Your task to perform on an android device: open app "Yahoo Mail" (install if not already installed) and enter user name: "lawsuit@inbox.com" and password: "pooch" Image 0: 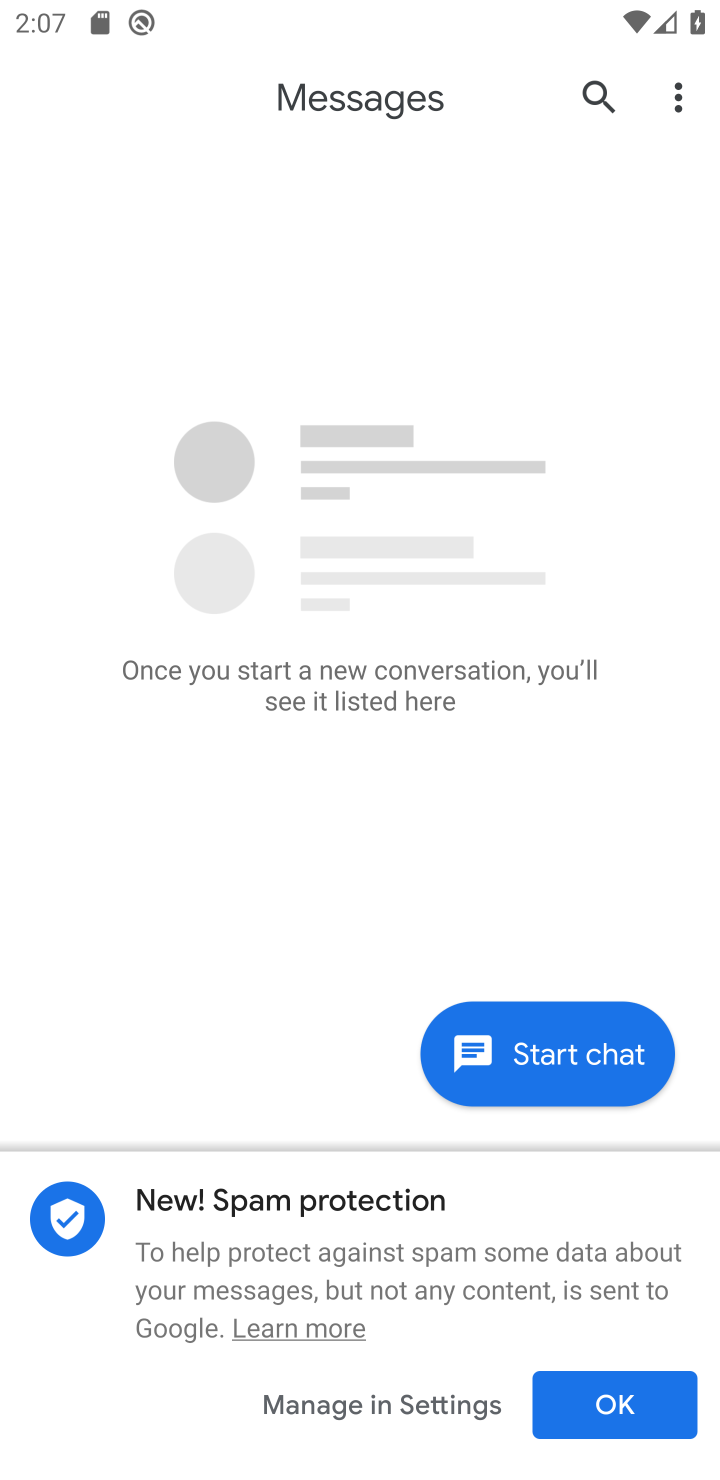
Step 0: press home button
Your task to perform on an android device: open app "Yahoo Mail" (install if not already installed) and enter user name: "lawsuit@inbox.com" and password: "pooch" Image 1: 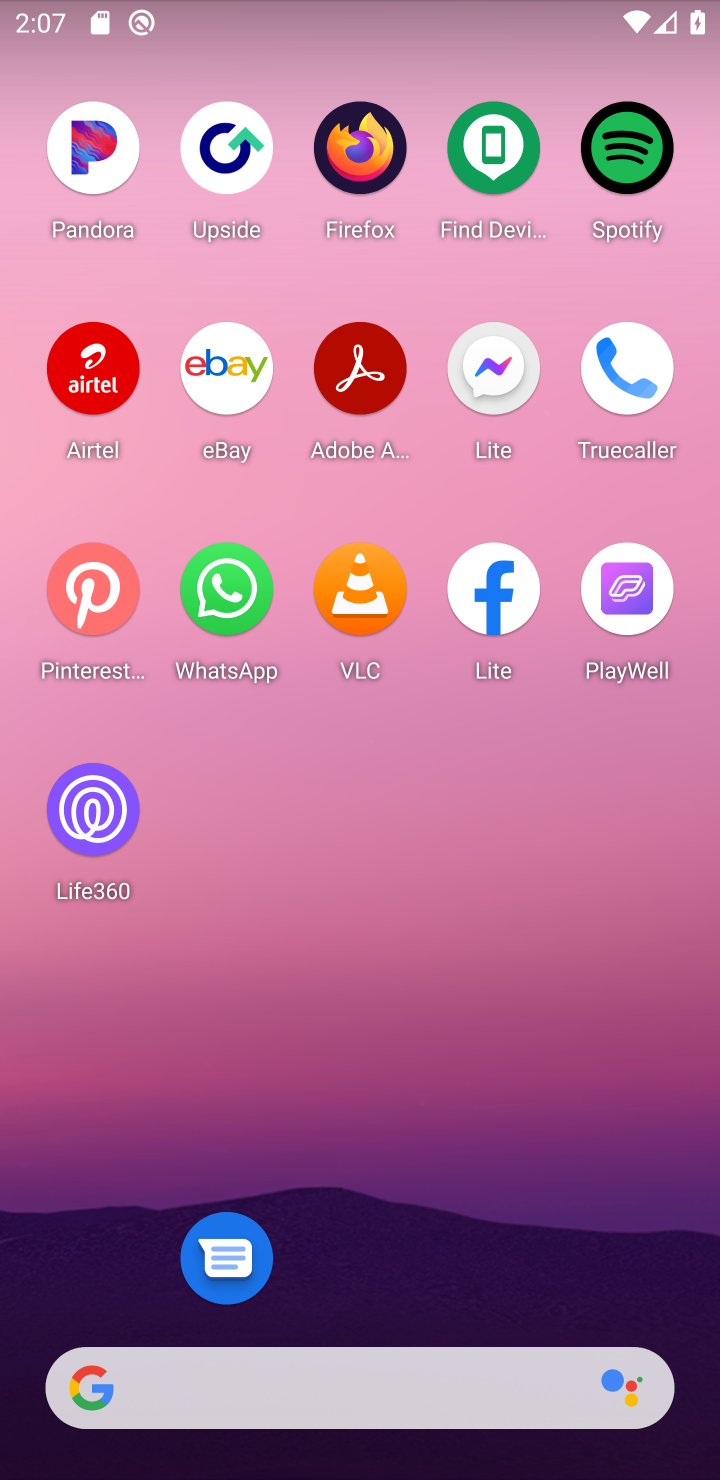
Step 1: drag from (355, 1193) to (465, 26)
Your task to perform on an android device: open app "Yahoo Mail" (install if not already installed) and enter user name: "lawsuit@inbox.com" and password: "pooch" Image 2: 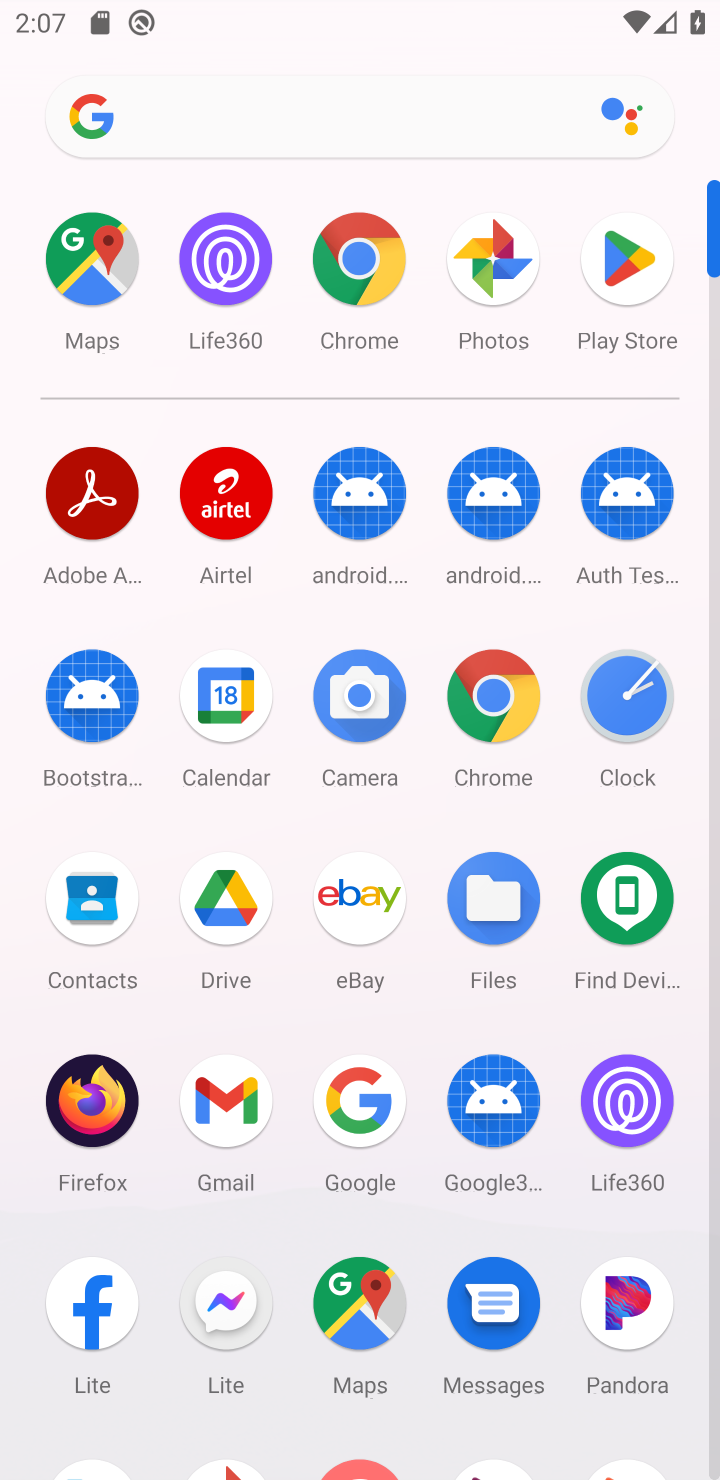
Step 2: click (628, 275)
Your task to perform on an android device: open app "Yahoo Mail" (install if not already installed) and enter user name: "lawsuit@inbox.com" and password: "pooch" Image 3: 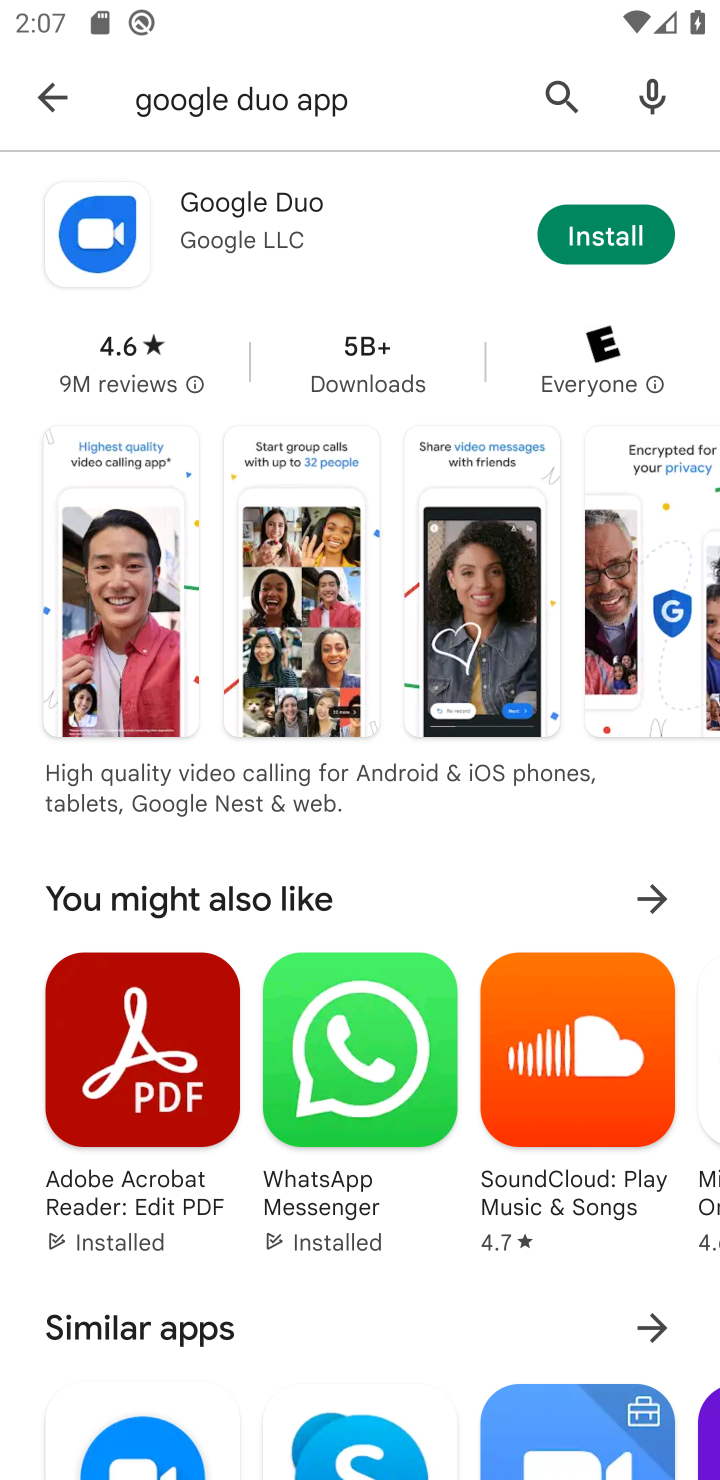
Step 3: click (33, 74)
Your task to perform on an android device: open app "Yahoo Mail" (install if not already installed) and enter user name: "lawsuit@inbox.com" and password: "pooch" Image 4: 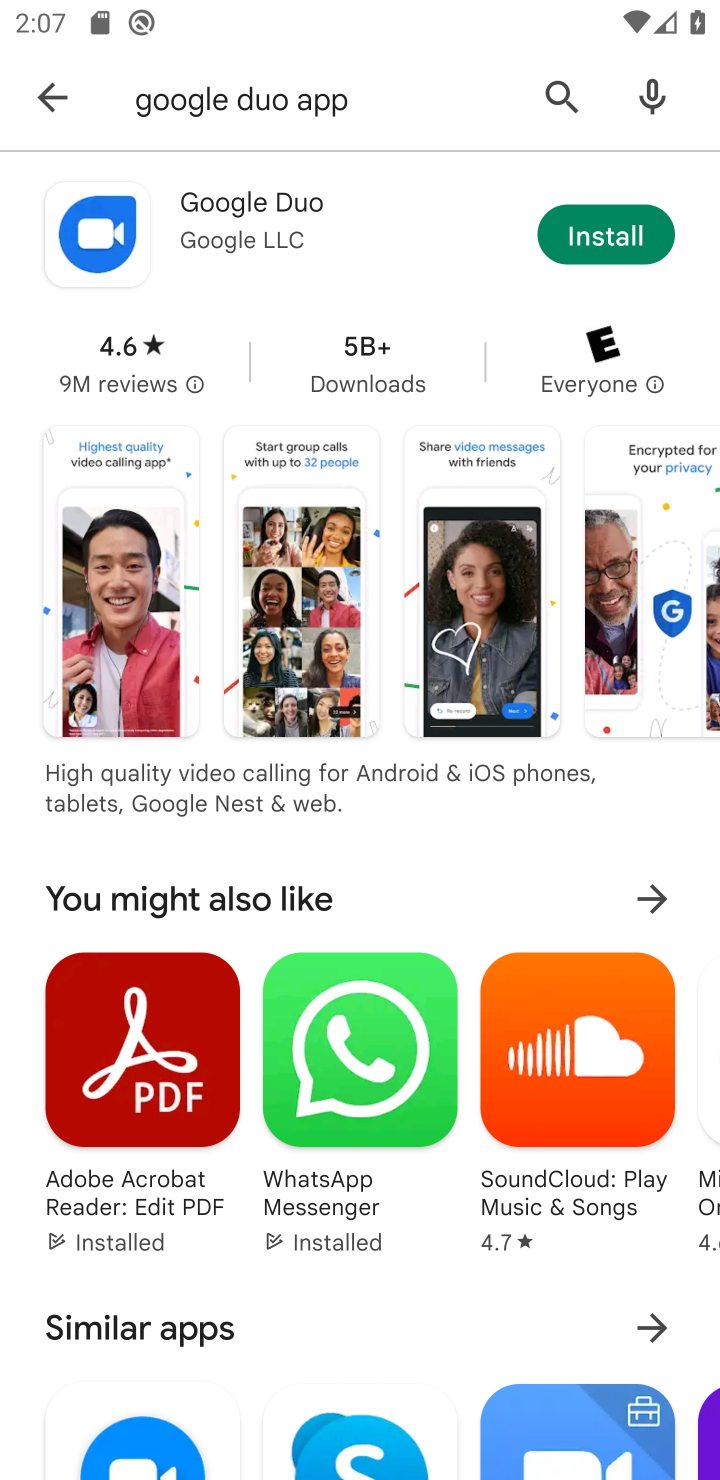
Step 4: click (278, 106)
Your task to perform on an android device: open app "Yahoo Mail" (install if not already installed) and enter user name: "lawsuit@inbox.com" and password: "pooch" Image 5: 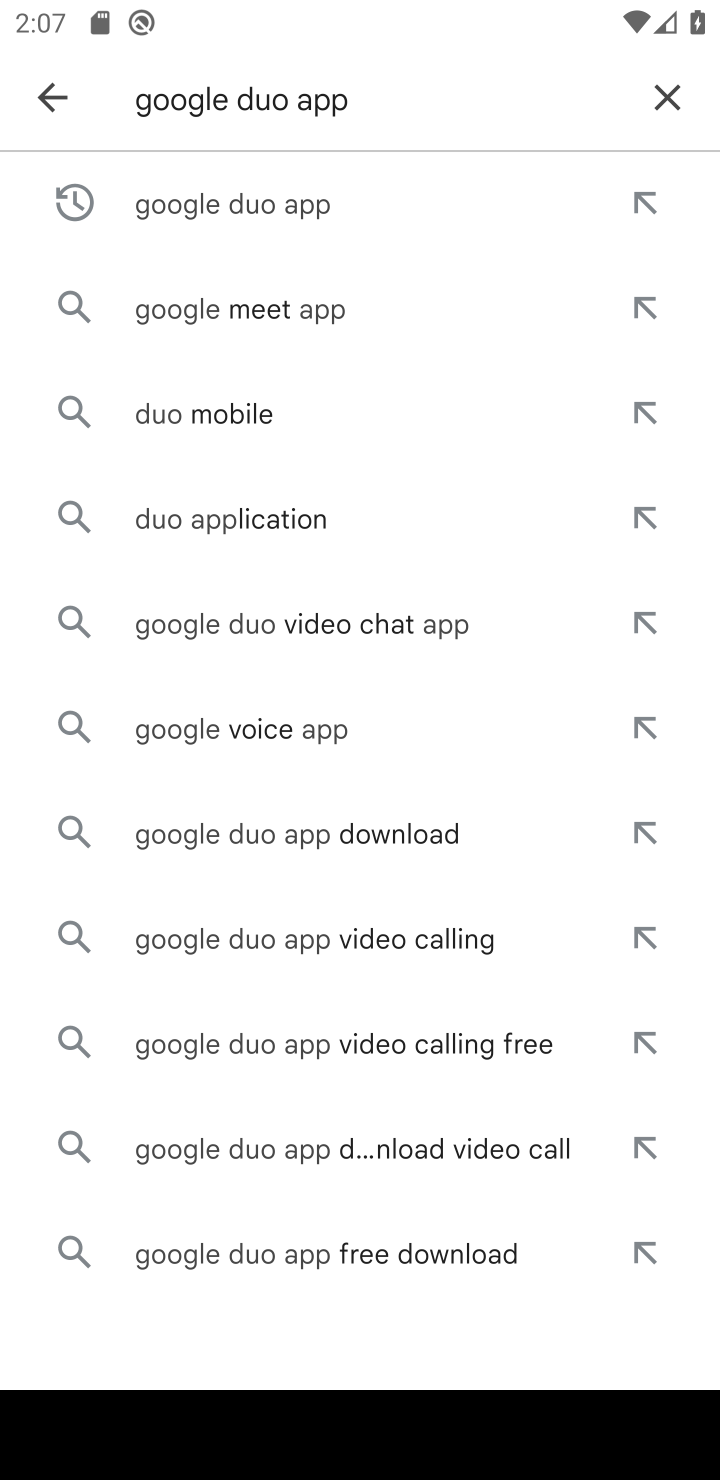
Step 5: type "Yahoo Mail "
Your task to perform on an android device: open app "Yahoo Mail" (install if not already installed) and enter user name: "lawsuit@inbox.com" and password: "pooch" Image 6: 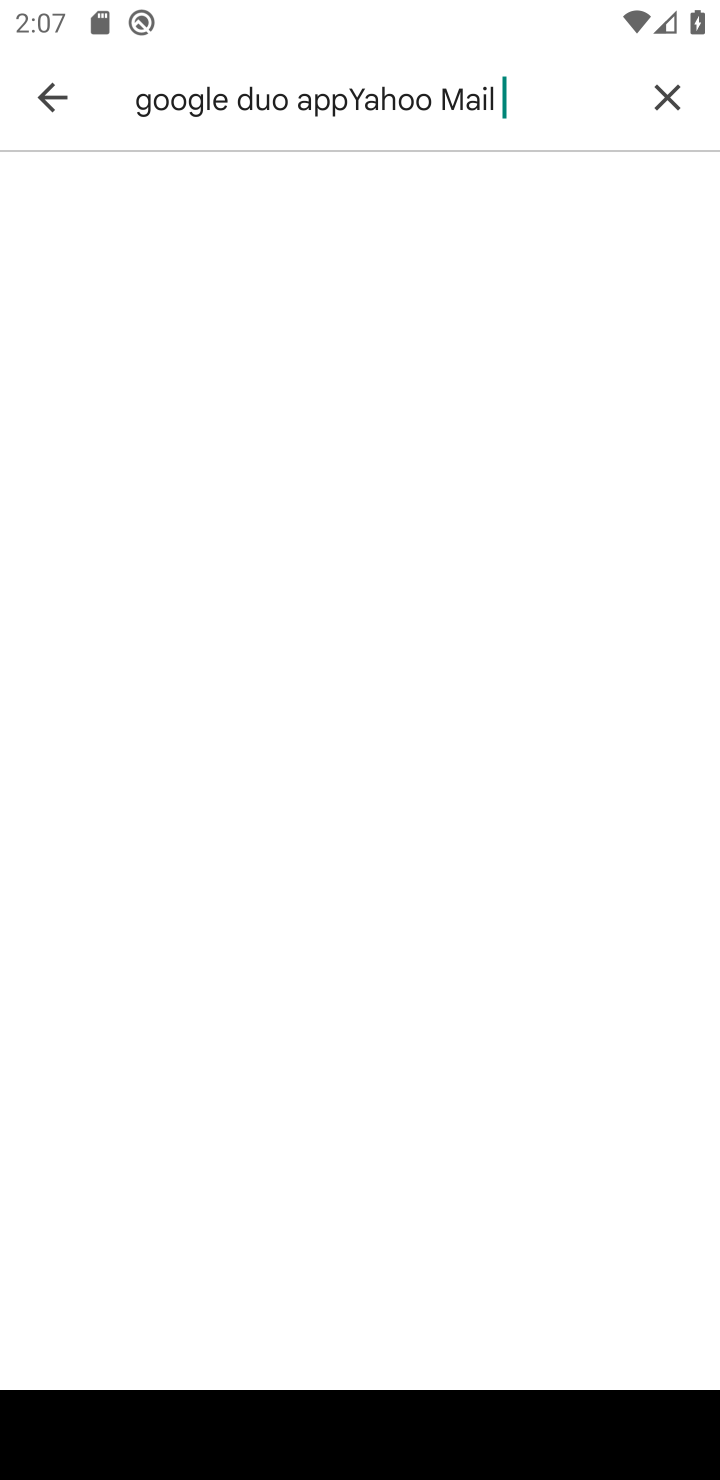
Step 6: click (336, 91)
Your task to perform on an android device: open app "Yahoo Mail" (install if not already installed) and enter user name: "lawsuit@inbox.com" and password: "pooch" Image 7: 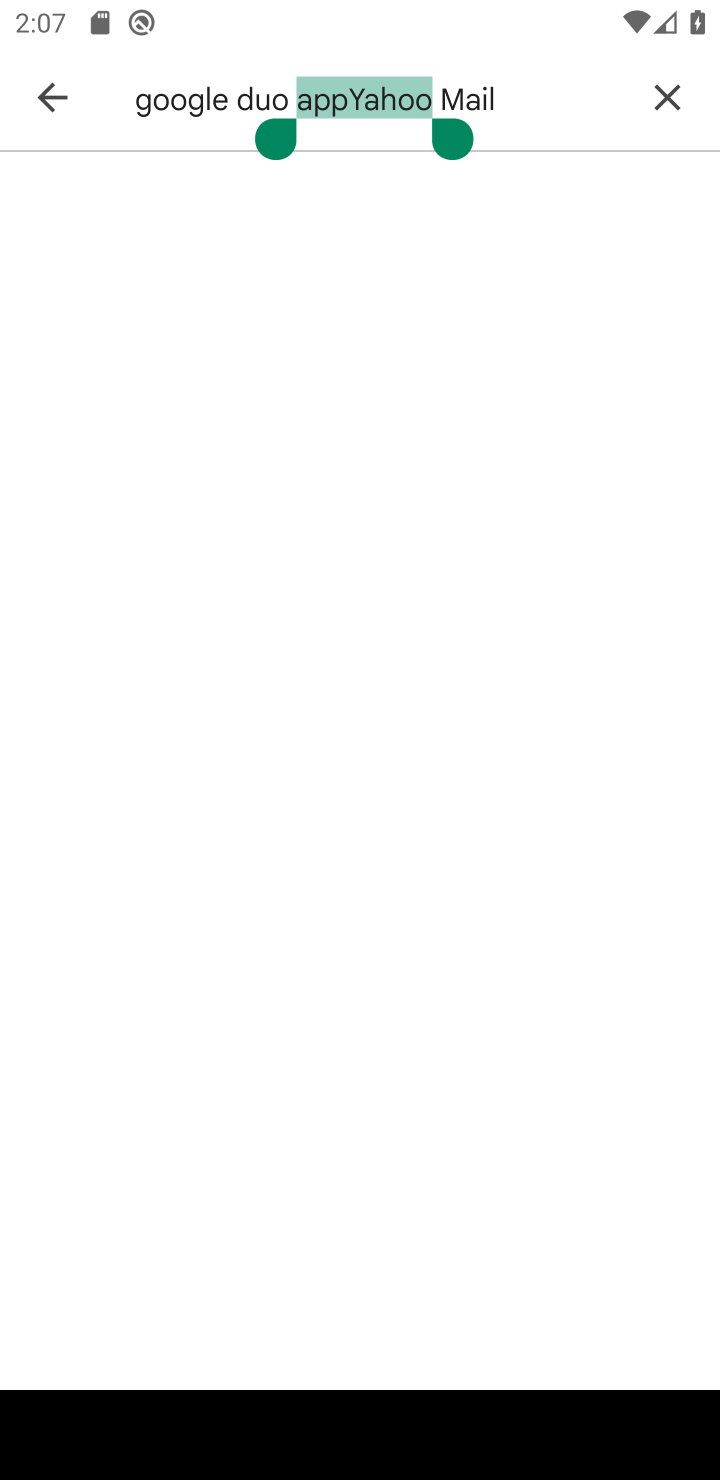
Step 7: click (160, 78)
Your task to perform on an android device: open app "Yahoo Mail" (install if not already installed) and enter user name: "lawsuit@inbox.com" and password: "pooch" Image 8: 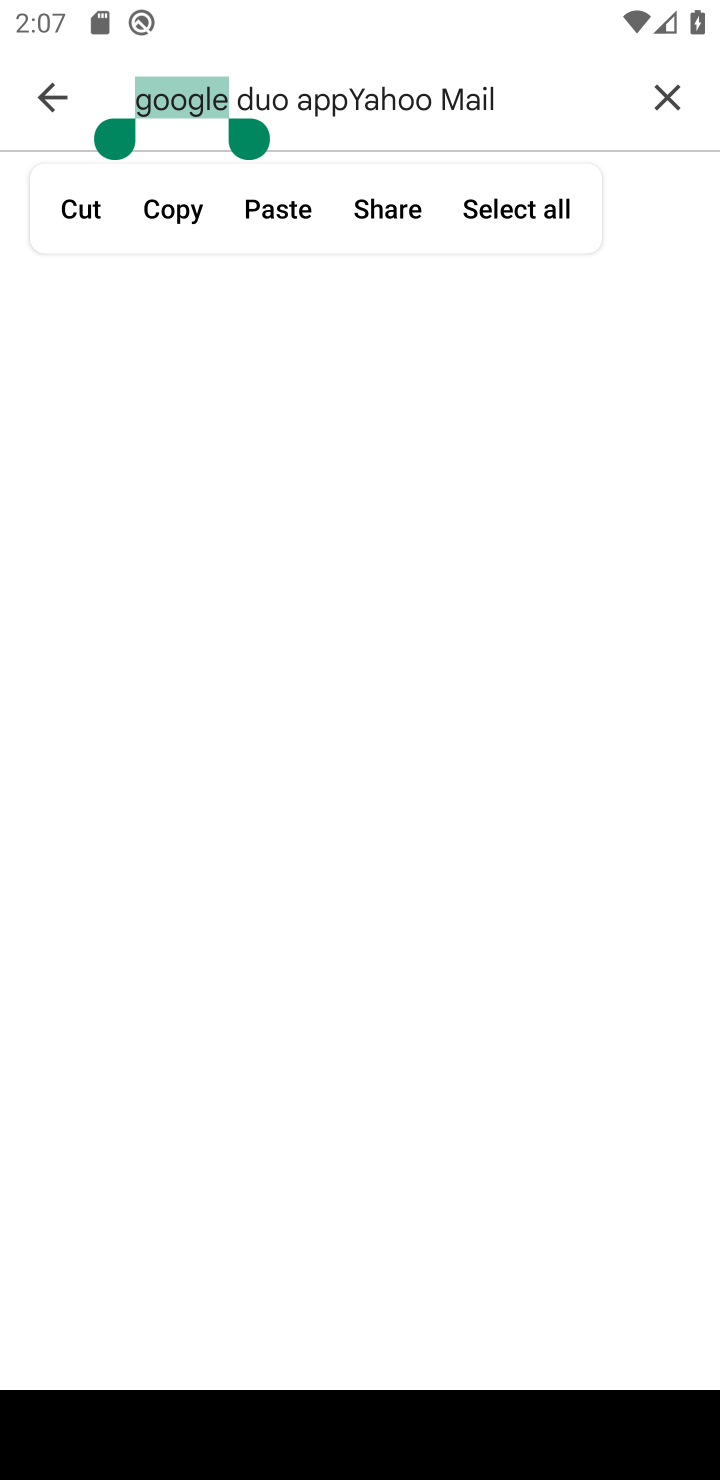
Step 8: drag from (226, 121) to (332, 119)
Your task to perform on an android device: open app "Yahoo Mail" (install if not already installed) and enter user name: "lawsuit@inbox.com" and password: "pooch" Image 9: 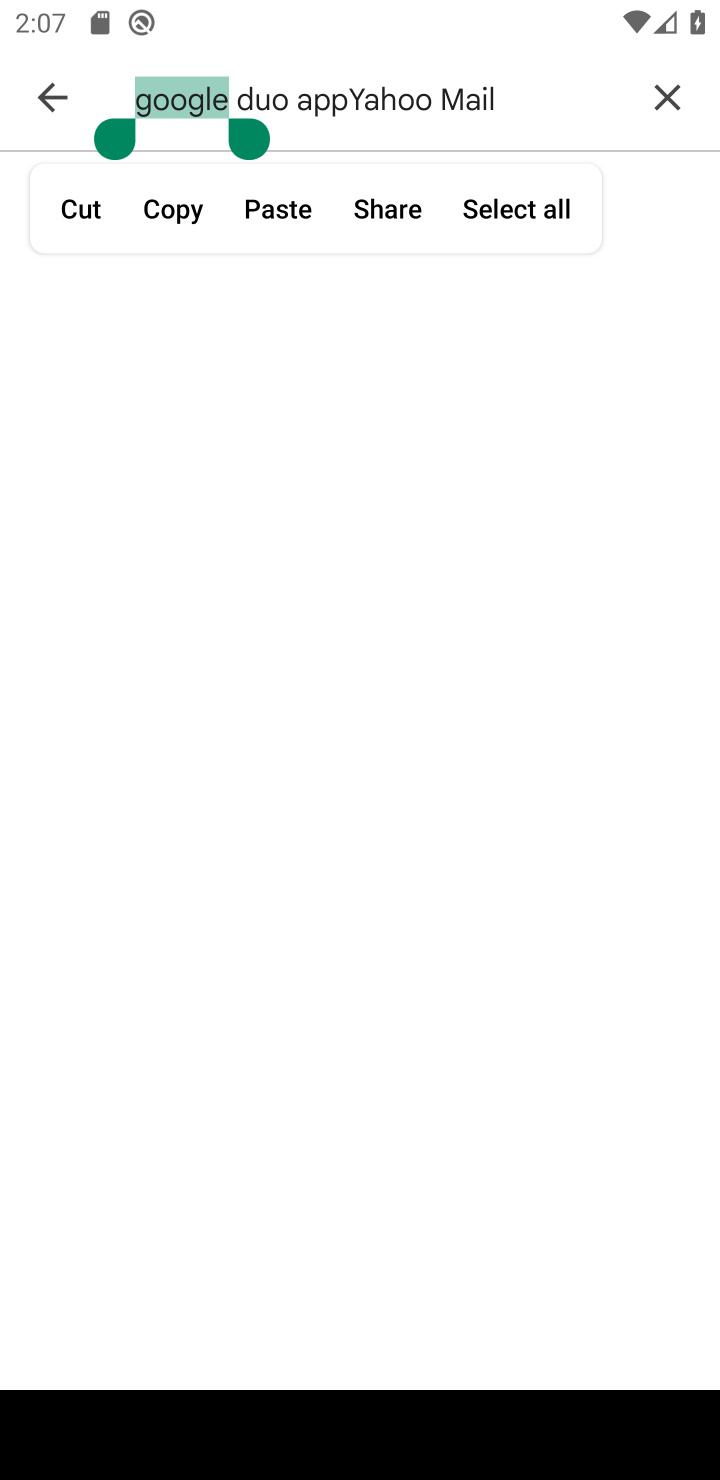
Step 9: drag from (225, 127) to (358, 132)
Your task to perform on an android device: open app "Yahoo Mail" (install if not already installed) and enter user name: "lawsuit@inbox.com" and password: "pooch" Image 10: 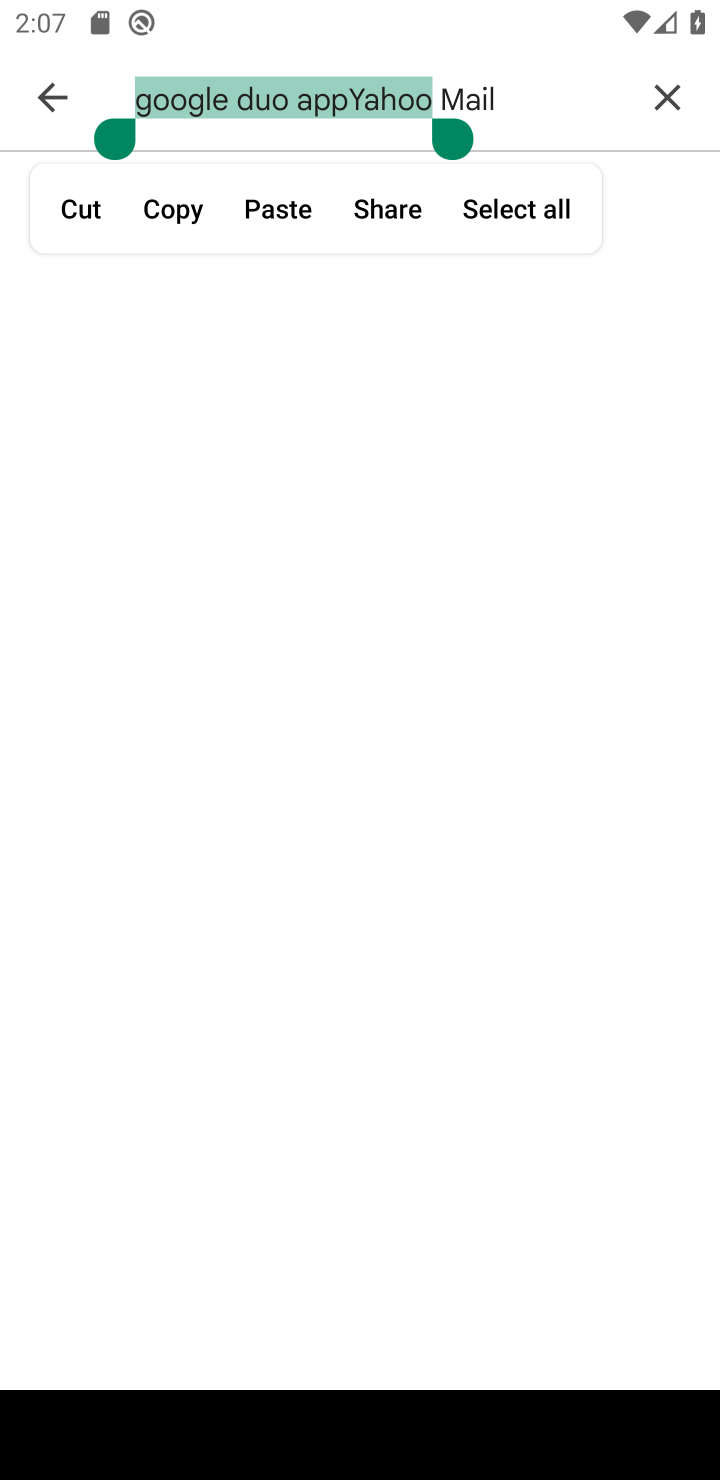
Step 10: drag from (442, 125) to (360, 107)
Your task to perform on an android device: open app "Yahoo Mail" (install if not already installed) and enter user name: "lawsuit@inbox.com" and password: "pooch" Image 11: 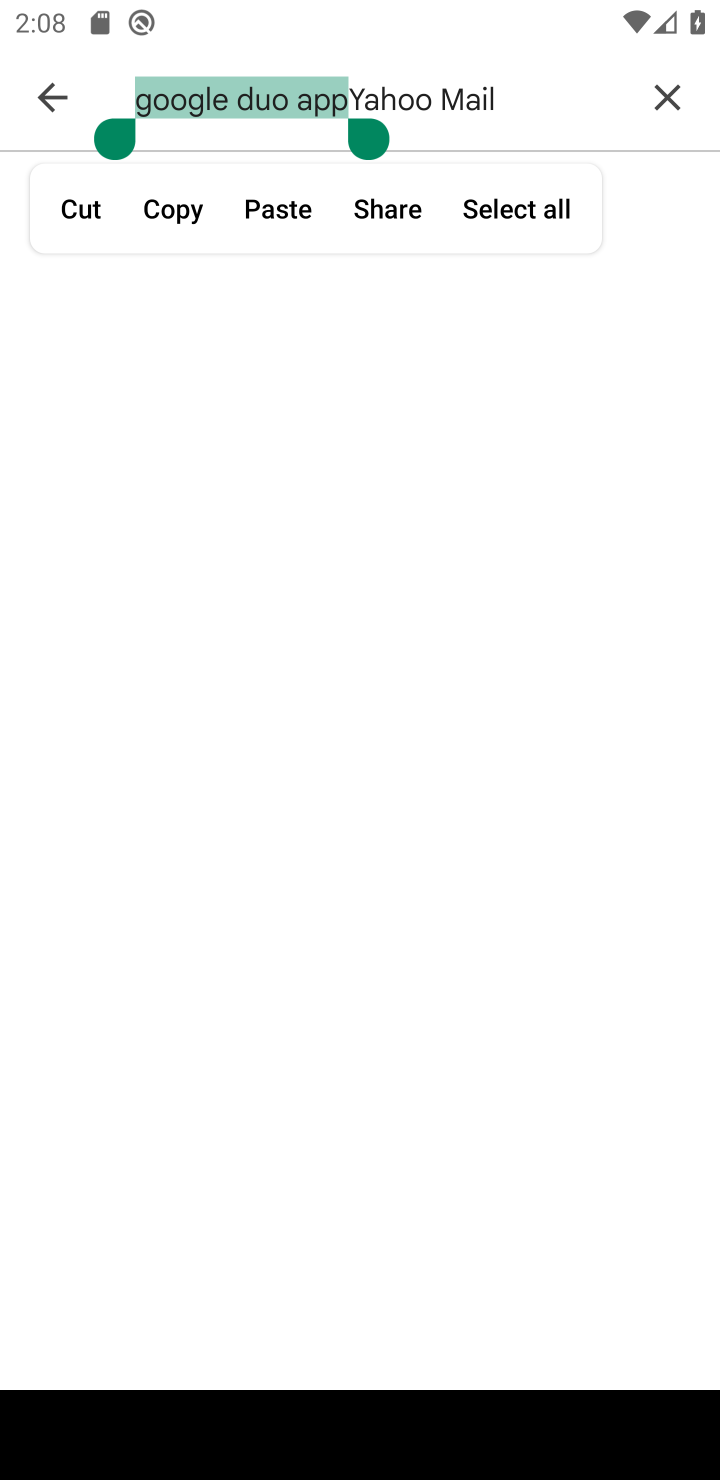
Step 11: click (95, 201)
Your task to perform on an android device: open app "Yahoo Mail" (install if not already installed) and enter user name: "lawsuit@inbox.com" and password: "pooch" Image 12: 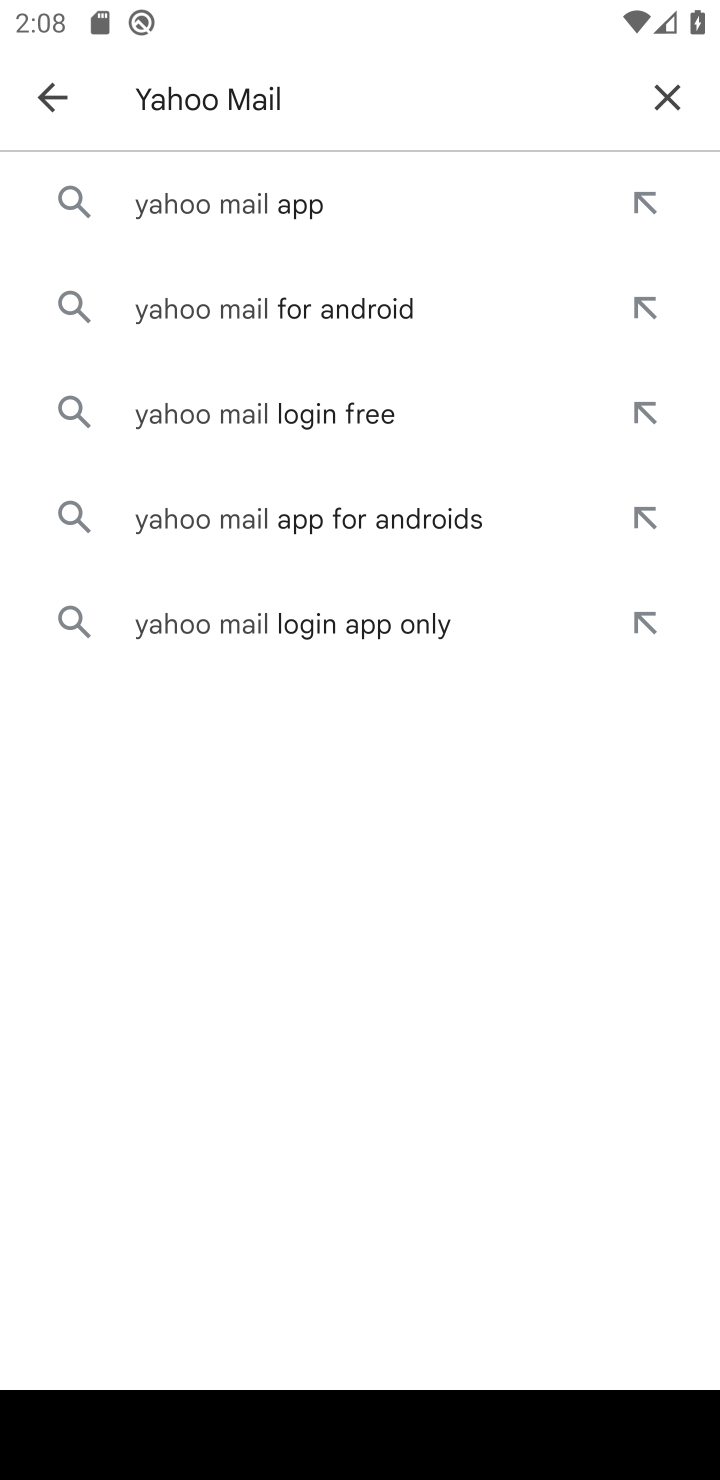
Step 12: click (315, 206)
Your task to perform on an android device: open app "Yahoo Mail" (install if not already installed) and enter user name: "lawsuit@inbox.com" and password: "pooch" Image 13: 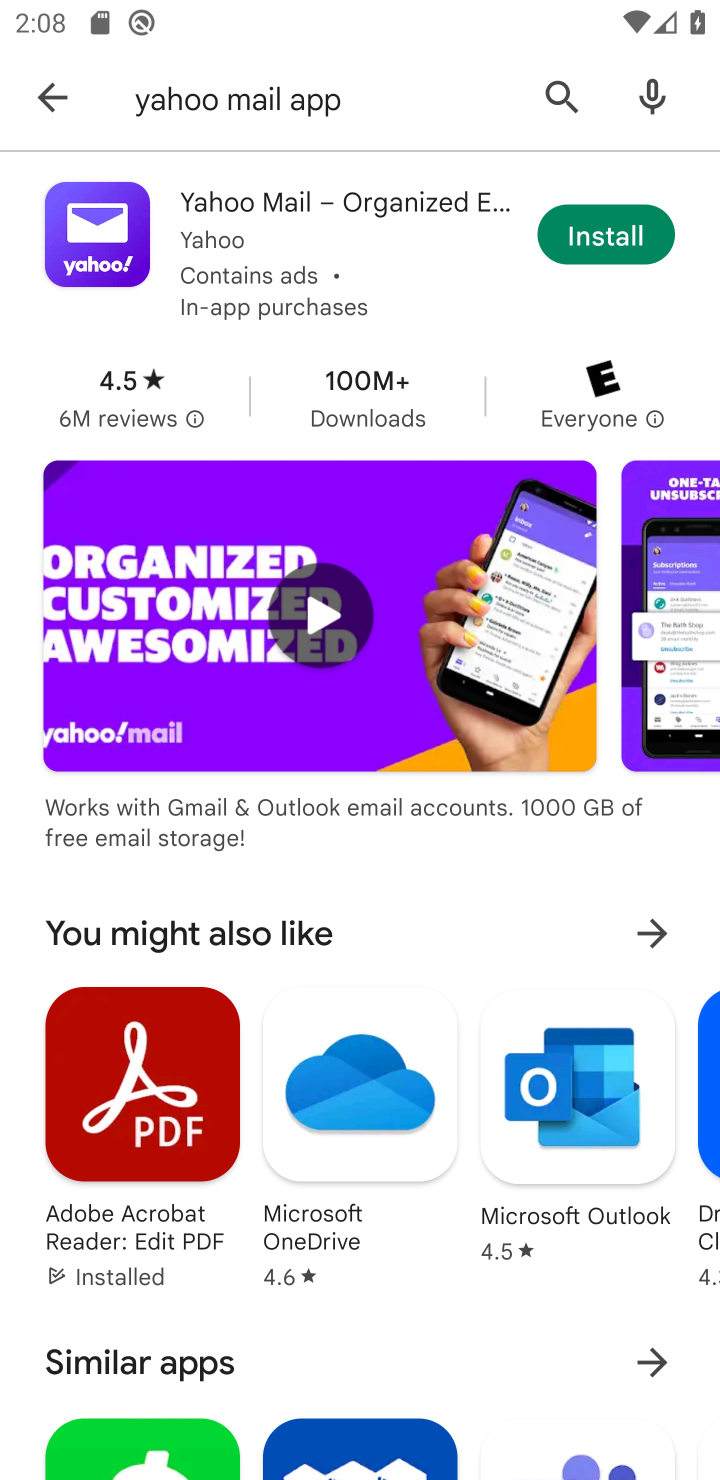
Step 13: click (578, 212)
Your task to perform on an android device: open app "Yahoo Mail" (install if not already installed) and enter user name: "lawsuit@inbox.com" and password: "pooch" Image 14: 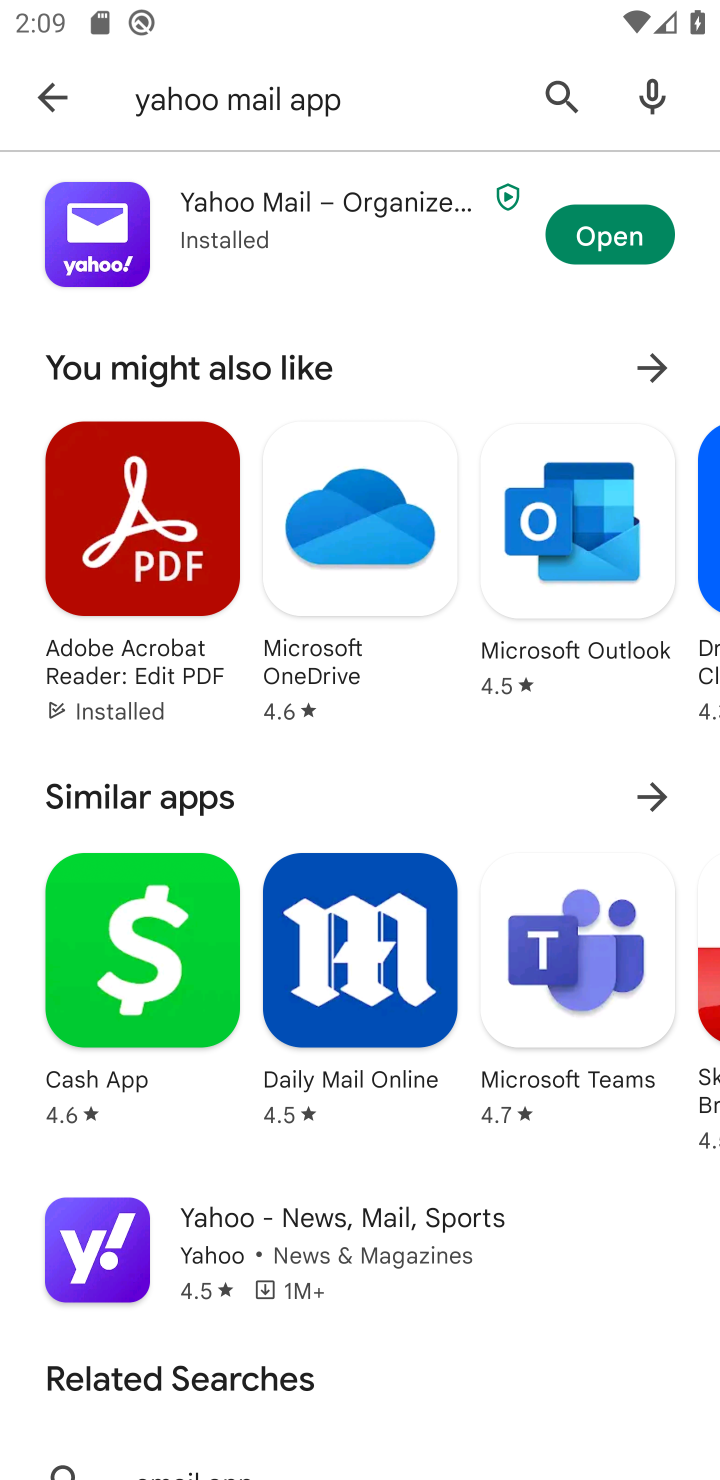
Step 14: task complete